Your task to perform on an android device: change alarm snooze length Image 0: 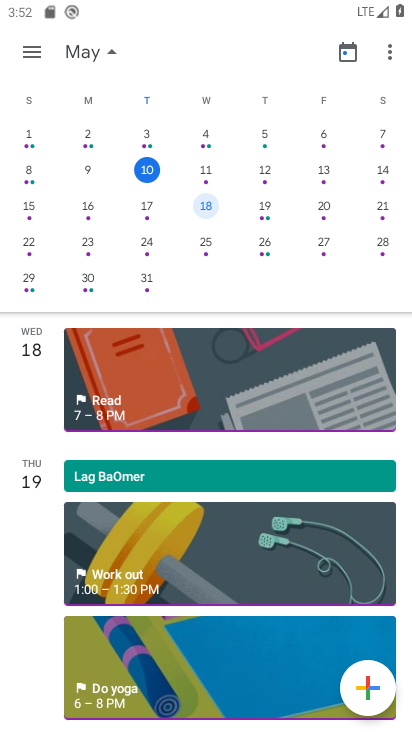
Step 0: task complete